Your task to perform on an android device: change the clock display to show seconds Image 0: 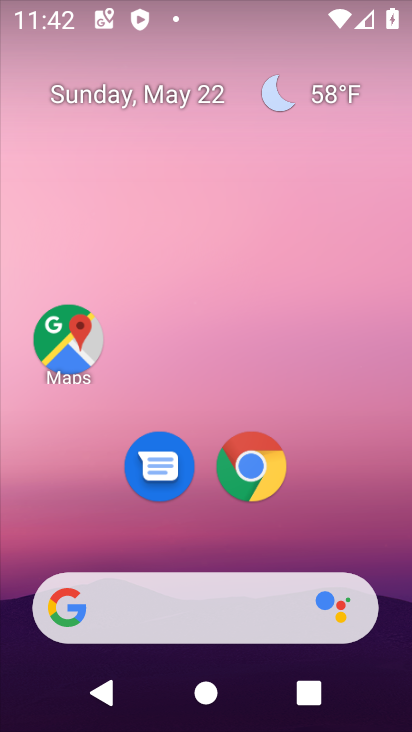
Step 0: drag from (240, 539) to (270, 58)
Your task to perform on an android device: change the clock display to show seconds Image 1: 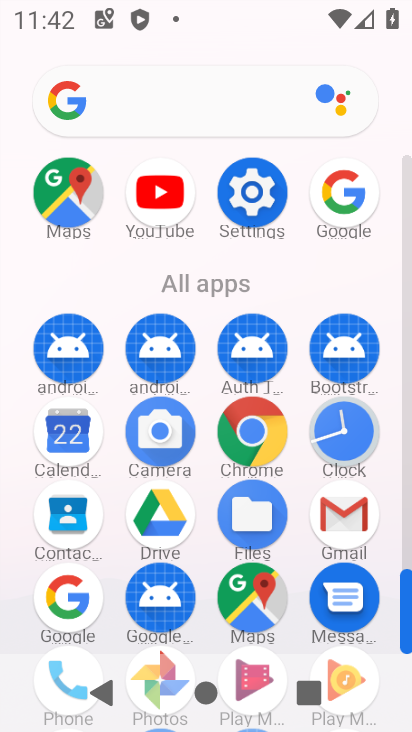
Step 1: click (346, 429)
Your task to perform on an android device: change the clock display to show seconds Image 2: 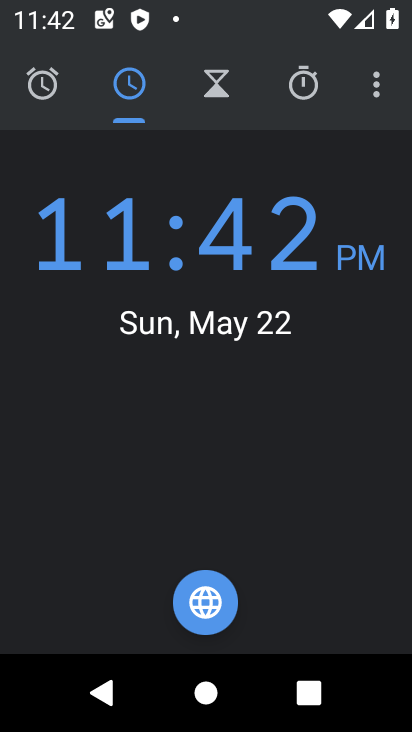
Step 2: click (363, 85)
Your task to perform on an android device: change the clock display to show seconds Image 3: 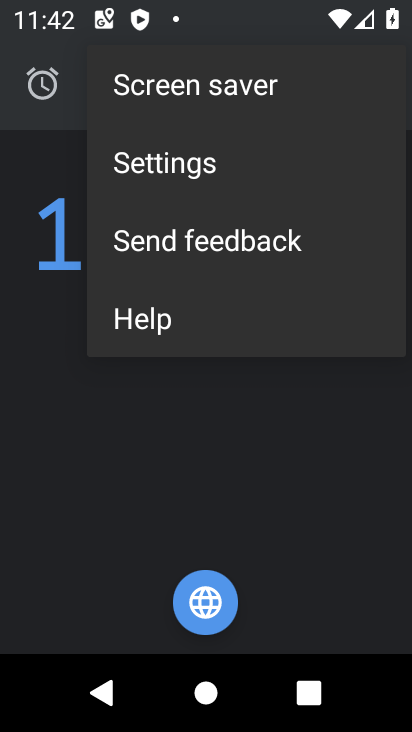
Step 3: click (249, 185)
Your task to perform on an android device: change the clock display to show seconds Image 4: 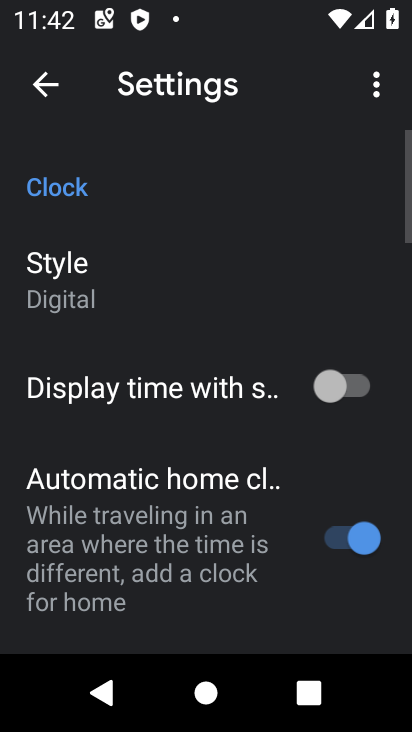
Step 4: click (346, 379)
Your task to perform on an android device: change the clock display to show seconds Image 5: 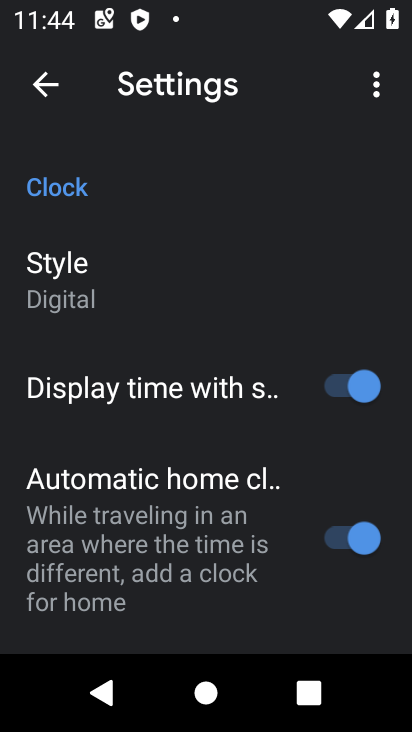
Step 5: task complete